Your task to perform on an android device: visit the assistant section in the google photos Image 0: 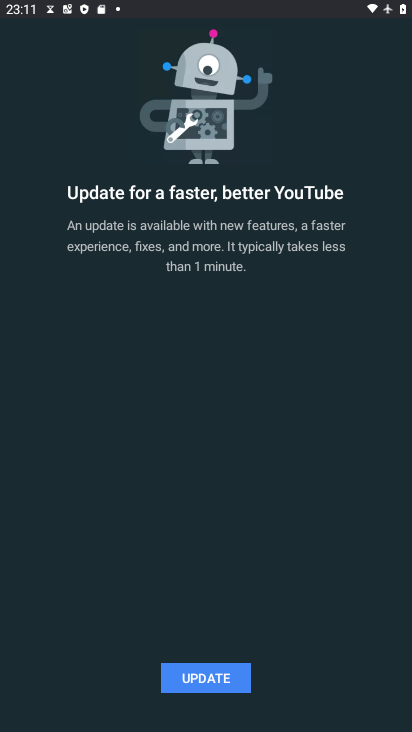
Step 0: press home button
Your task to perform on an android device: visit the assistant section in the google photos Image 1: 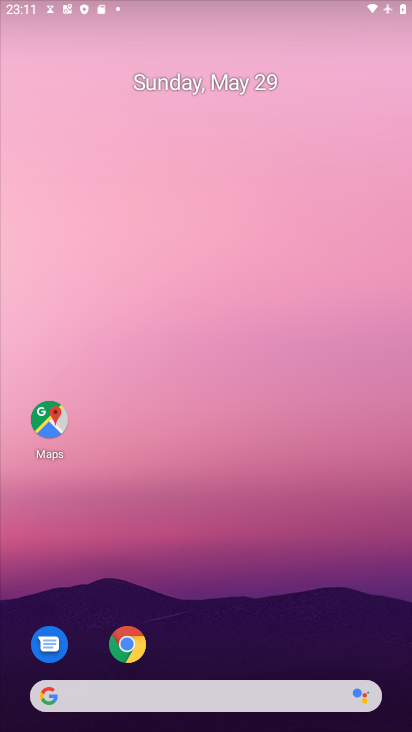
Step 1: drag from (189, 618) to (171, 291)
Your task to perform on an android device: visit the assistant section in the google photos Image 2: 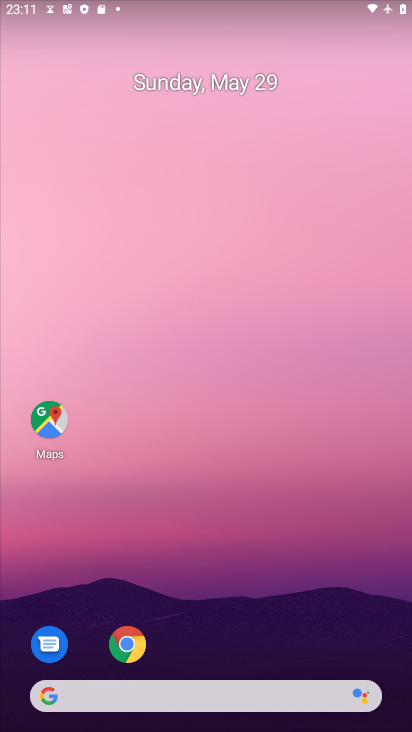
Step 2: drag from (175, 645) to (178, 223)
Your task to perform on an android device: visit the assistant section in the google photos Image 3: 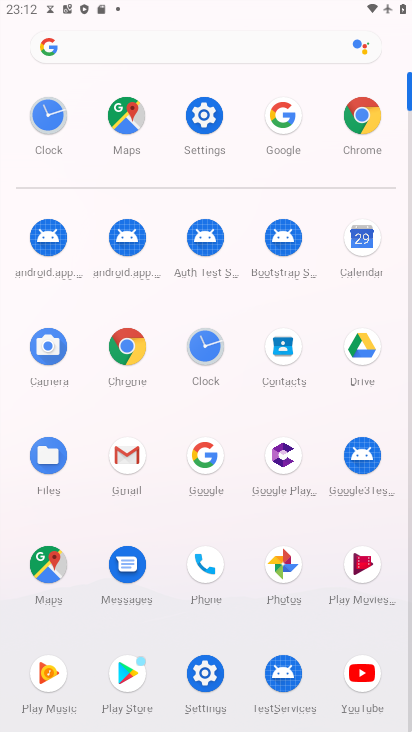
Step 3: click (273, 556)
Your task to perform on an android device: visit the assistant section in the google photos Image 4: 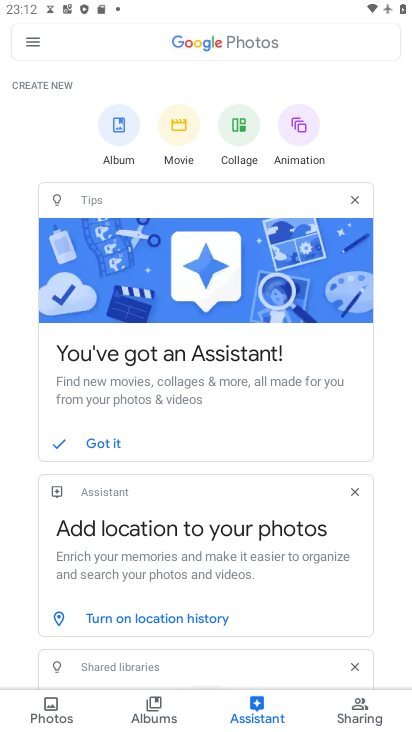
Step 4: task complete